Your task to perform on an android device: turn vacation reply on in the gmail app Image 0: 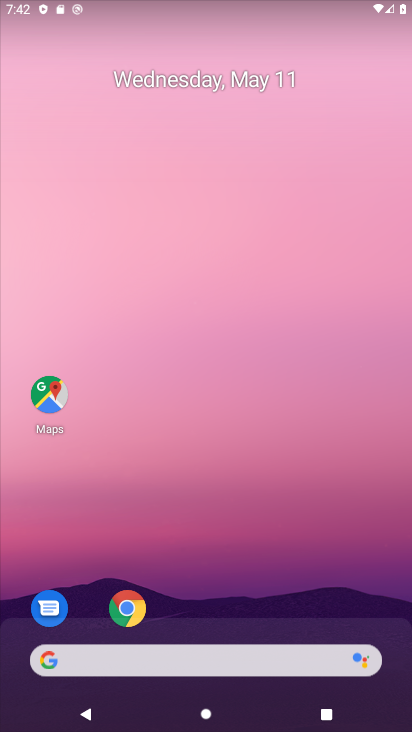
Step 0: drag from (241, 552) to (174, 6)
Your task to perform on an android device: turn vacation reply on in the gmail app Image 1: 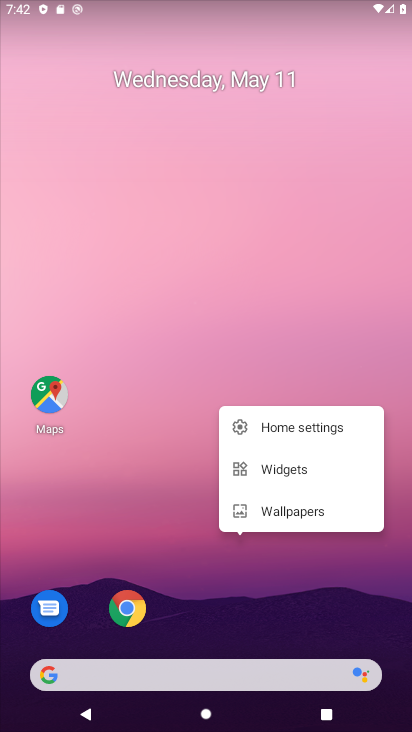
Step 1: click (140, 434)
Your task to perform on an android device: turn vacation reply on in the gmail app Image 2: 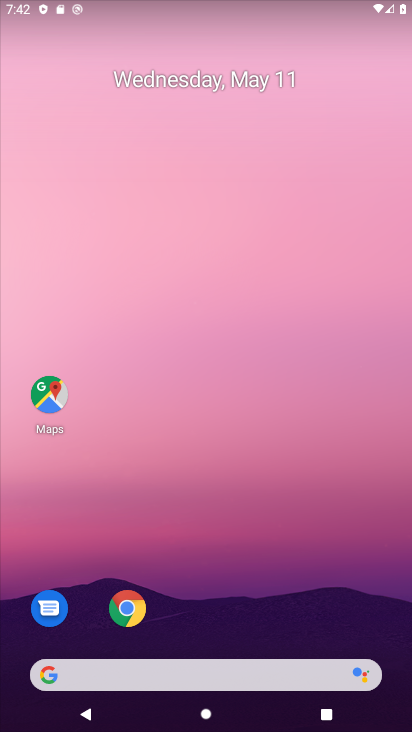
Step 2: drag from (246, 582) to (250, 10)
Your task to perform on an android device: turn vacation reply on in the gmail app Image 3: 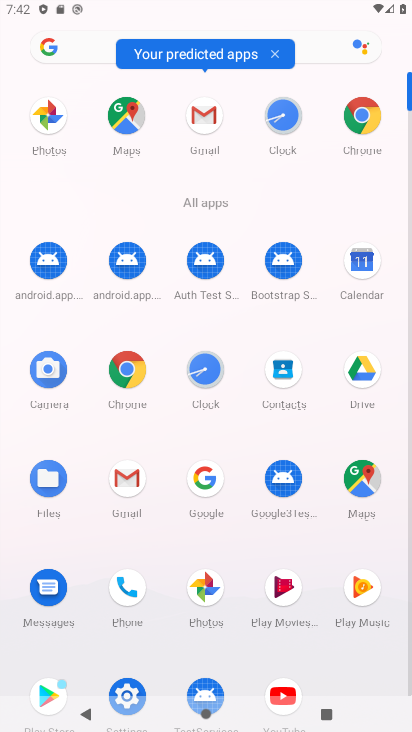
Step 3: click (222, 129)
Your task to perform on an android device: turn vacation reply on in the gmail app Image 4: 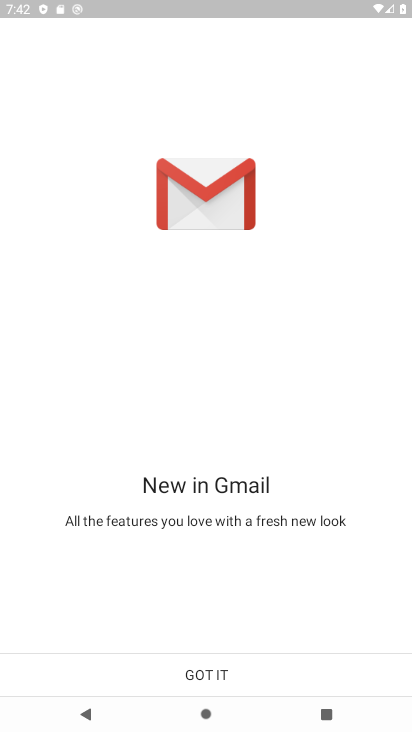
Step 4: click (188, 671)
Your task to perform on an android device: turn vacation reply on in the gmail app Image 5: 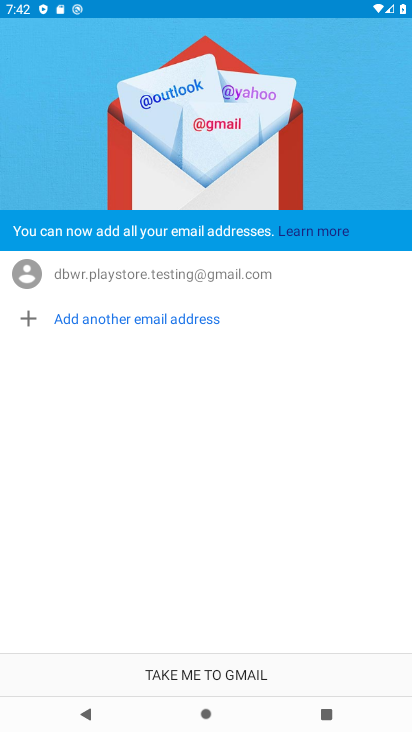
Step 5: click (188, 671)
Your task to perform on an android device: turn vacation reply on in the gmail app Image 6: 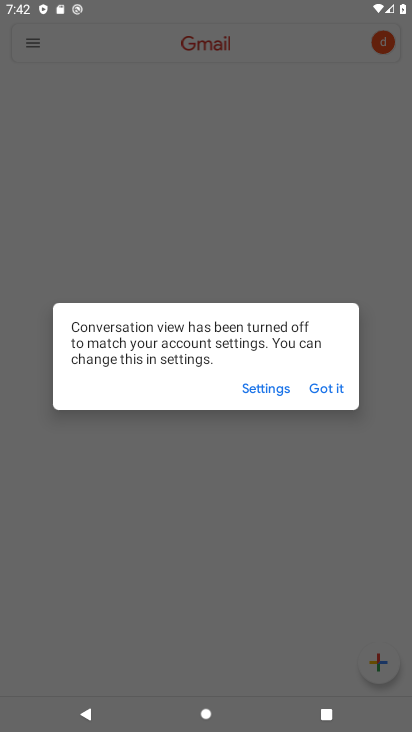
Step 6: click (336, 383)
Your task to perform on an android device: turn vacation reply on in the gmail app Image 7: 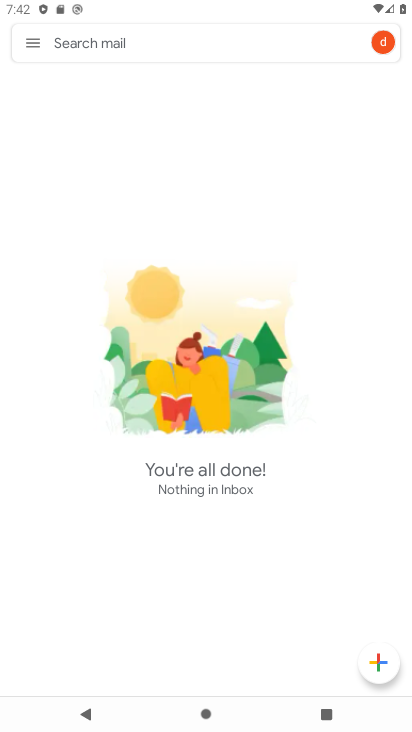
Step 7: click (27, 35)
Your task to perform on an android device: turn vacation reply on in the gmail app Image 8: 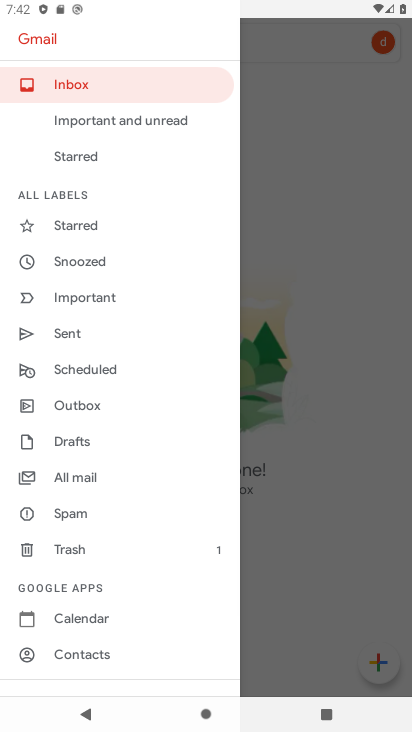
Step 8: drag from (74, 651) to (99, 253)
Your task to perform on an android device: turn vacation reply on in the gmail app Image 9: 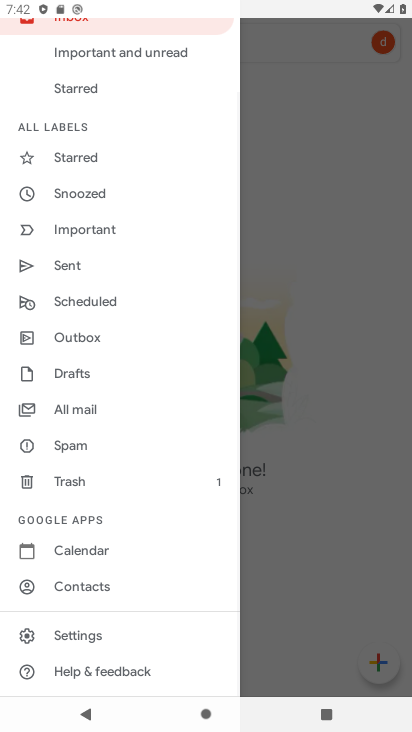
Step 9: click (97, 649)
Your task to perform on an android device: turn vacation reply on in the gmail app Image 10: 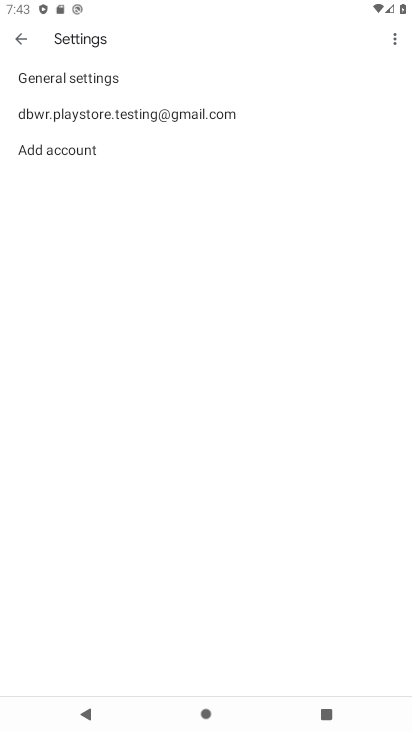
Step 10: click (93, 104)
Your task to perform on an android device: turn vacation reply on in the gmail app Image 11: 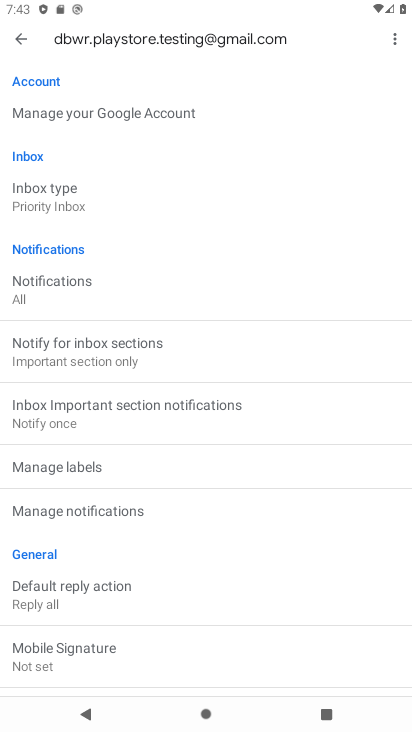
Step 11: drag from (140, 472) to (161, 314)
Your task to perform on an android device: turn vacation reply on in the gmail app Image 12: 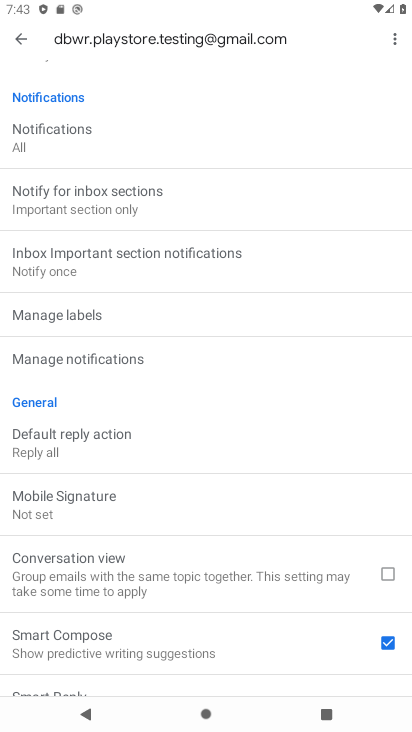
Step 12: drag from (121, 537) to (165, 251)
Your task to perform on an android device: turn vacation reply on in the gmail app Image 13: 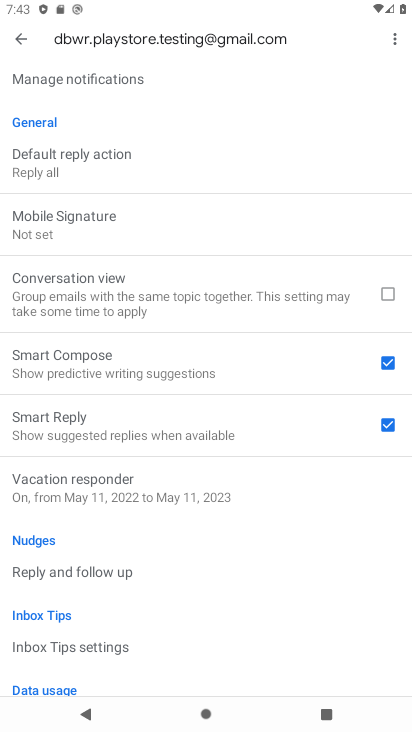
Step 13: click (150, 482)
Your task to perform on an android device: turn vacation reply on in the gmail app Image 14: 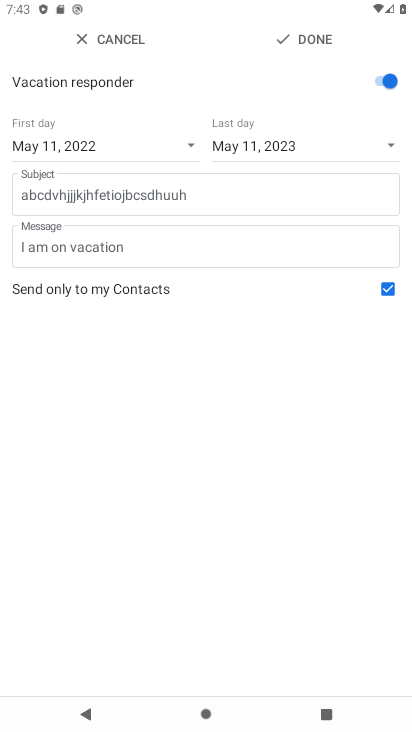
Step 14: click (314, 46)
Your task to perform on an android device: turn vacation reply on in the gmail app Image 15: 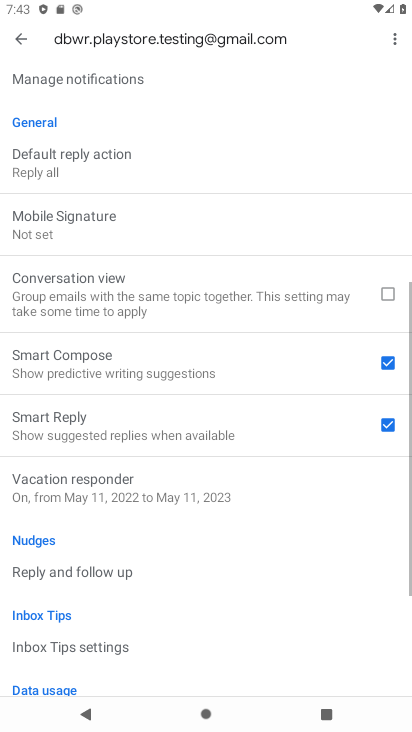
Step 15: task complete